Your task to perform on an android device: Open location settings Image 0: 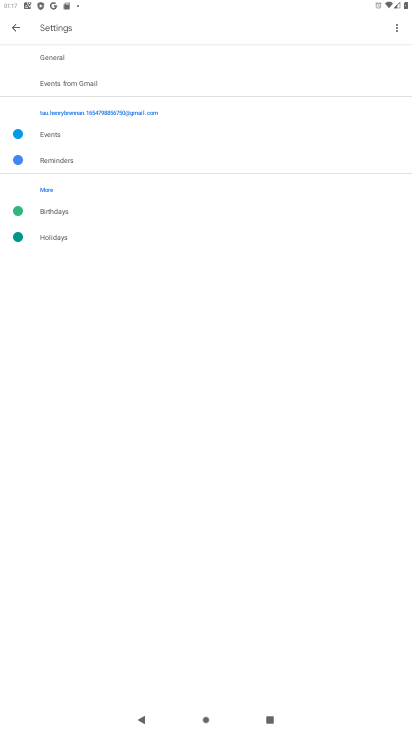
Step 0: press home button
Your task to perform on an android device: Open location settings Image 1: 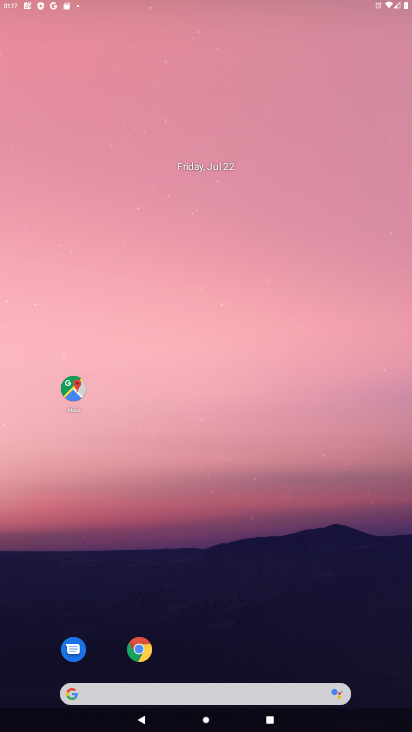
Step 1: drag from (313, 624) to (280, 185)
Your task to perform on an android device: Open location settings Image 2: 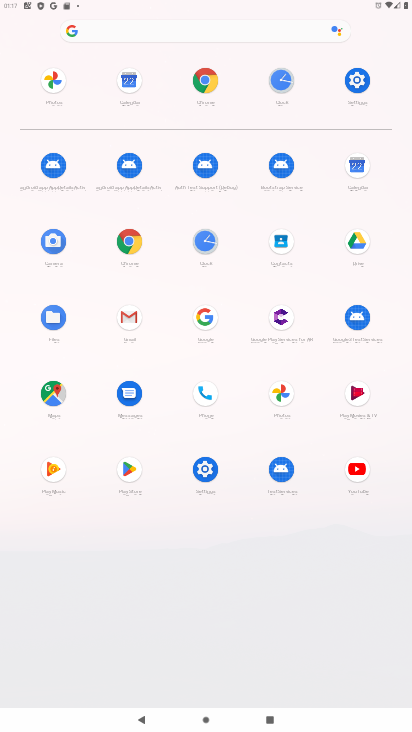
Step 2: click (362, 78)
Your task to perform on an android device: Open location settings Image 3: 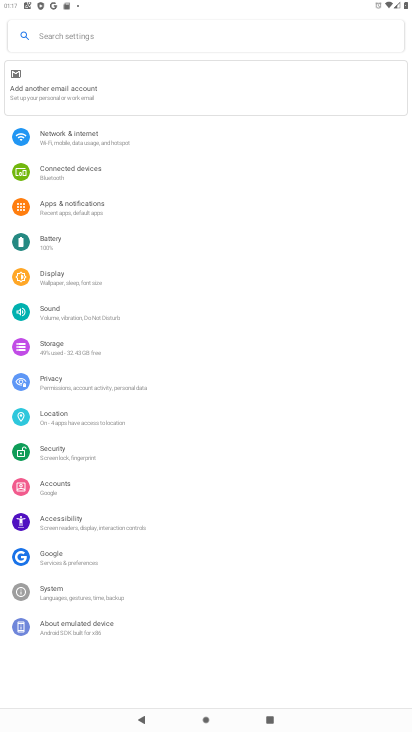
Step 3: click (85, 419)
Your task to perform on an android device: Open location settings Image 4: 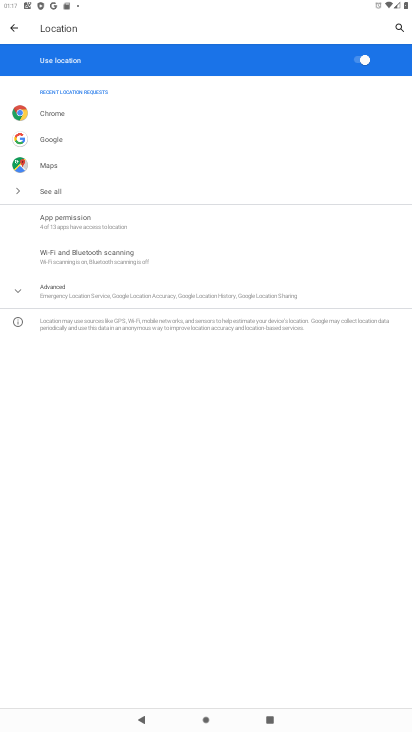
Step 4: task complete